Your task to perform on an android device: toggle translation in the chrome app Image 0: 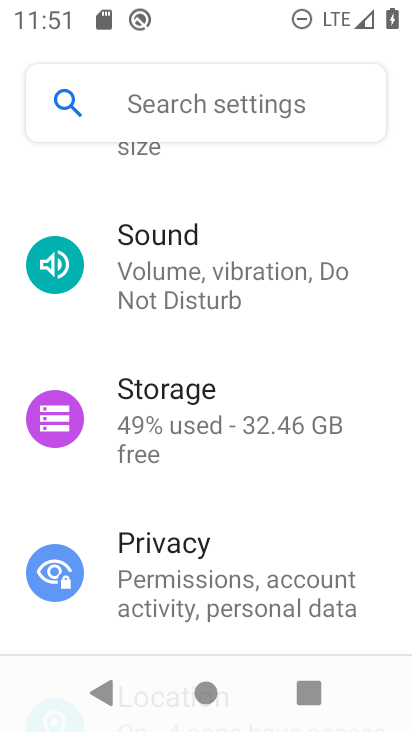
Step 0: press home button
Your task to perform on an android device: toggle translation in the chrome app Image 1: 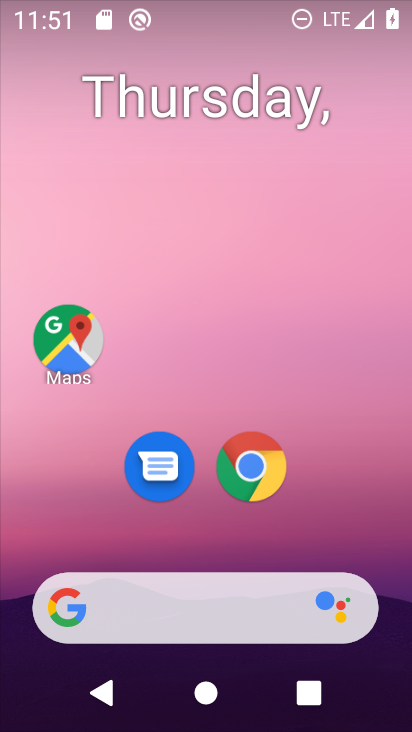
Step 1: drag from (216, 574) to (273, 86)
Your task to perform on an android device: toggle translation in the chrome app Image 2: 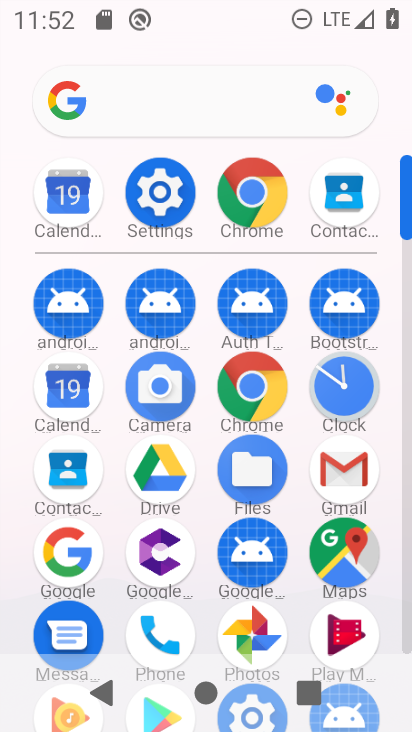
Step 2: click (261, 400)
Your task to perform on an android device: toggle translation in the chrome app Image 3: 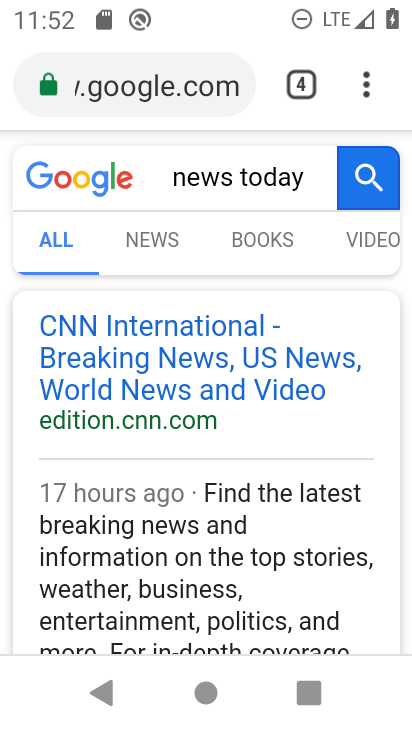
Step 3: drag from (362, 83) to (125, 505)
Your task to perform on an android device: toggle translation in the chrome app Image 4: 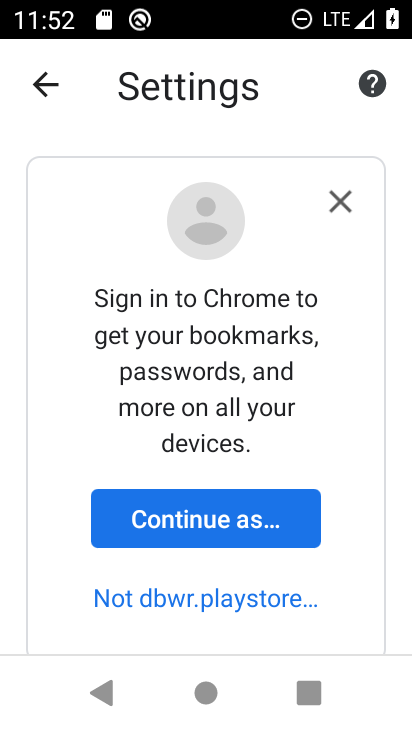
Step 4: drag from (332, 618) to (324, 88)
Your task to perform on an android device: toggle translation in the chrome app Image 5: 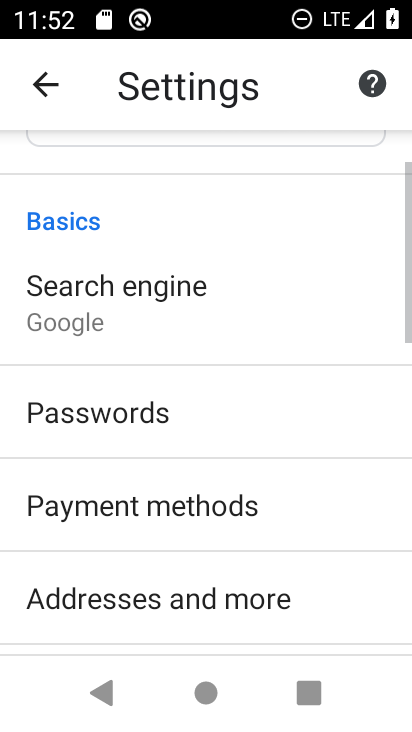
Step 5: drag from (320, 626) to (283, 152)
Your task to perform on an android device: toggle translation in the chrome app Image 6: 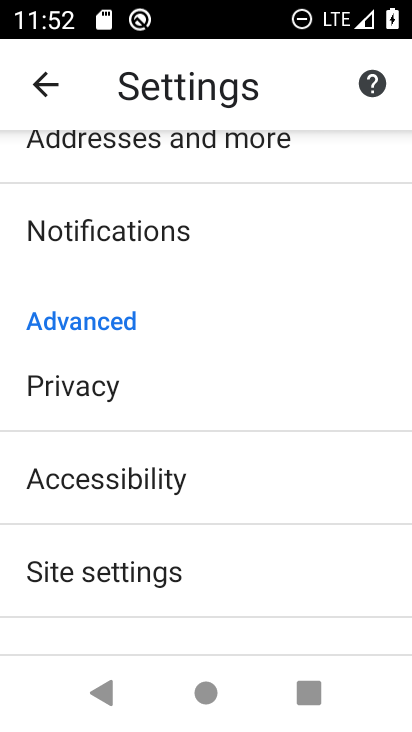
Step 6: click (185, 571)
Your task to perform on an android device: toggle translation in the chrome app Image 7: 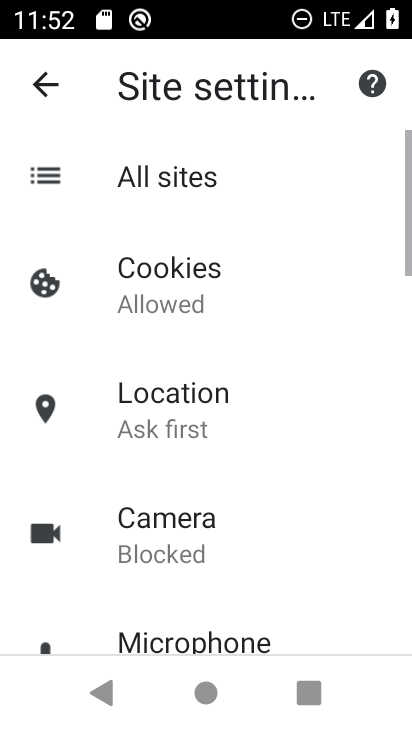
Step 7: drag from (237, 616) to (254, 126)
Your task to perform on an android device: toggle translation in the chrome app Image 8: 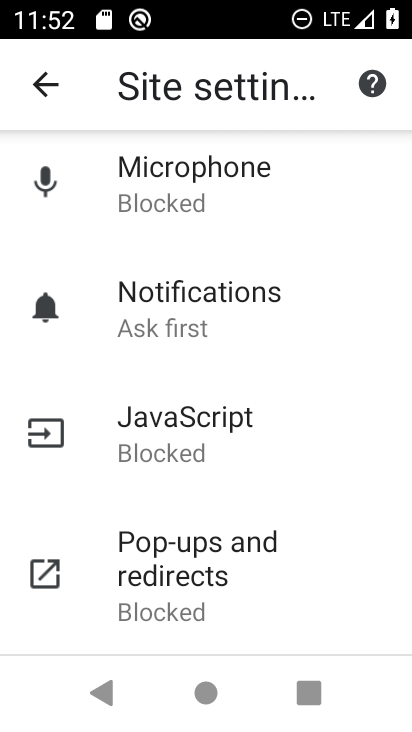
Step 8: drag from (249, 577) to (236, 649)
Your task to perform on an android device: toggle translation in the chrome app Image 9: 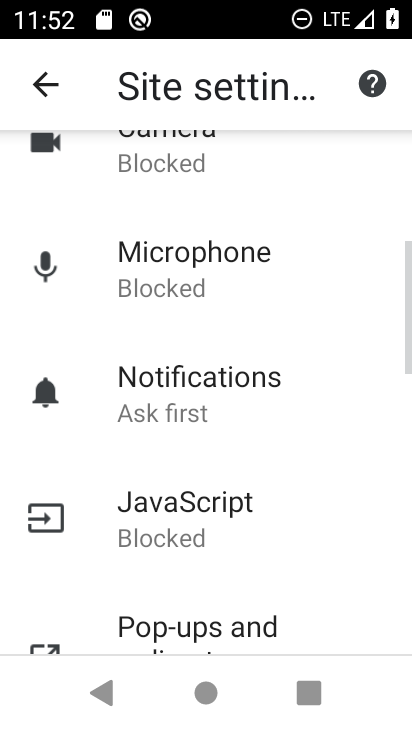
Step 9: drag from (252, 349) to (228, 598)
Your task to perform on an android device: toggle translation in the chrome app Image 10: 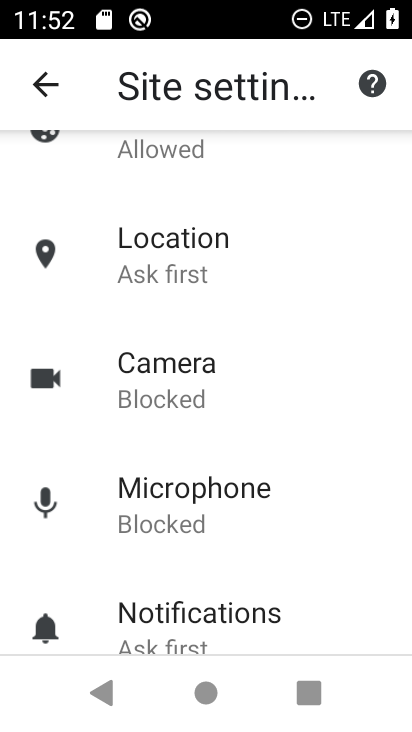
Step 10: press back button
Your task to perform on an android device: toggle translation in the chrome app Image 11: 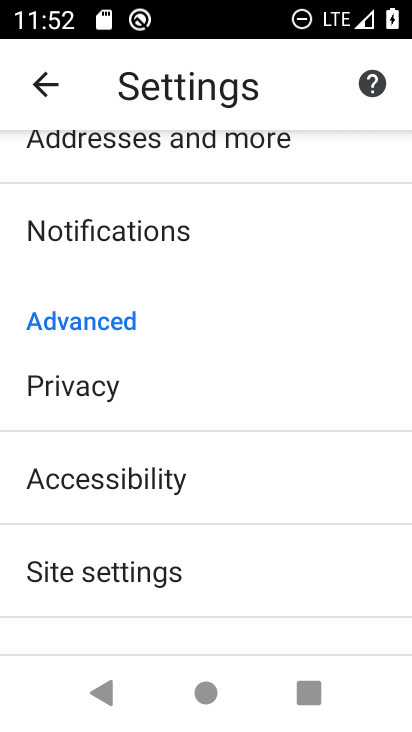
Step 11: drag from (191, 633) to (251, 366)
Your task to perform on an android device: toggle translation in the chrome app Image 12: 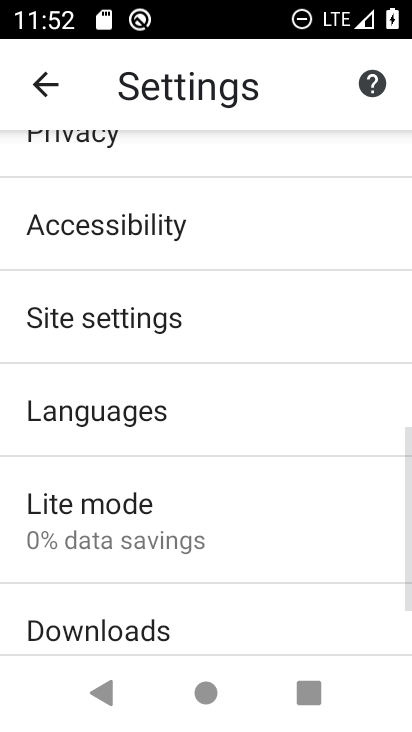
Step 12: click (218, 400)
Your task to perform on an android device: toggle translation in the chrome app Image 13: 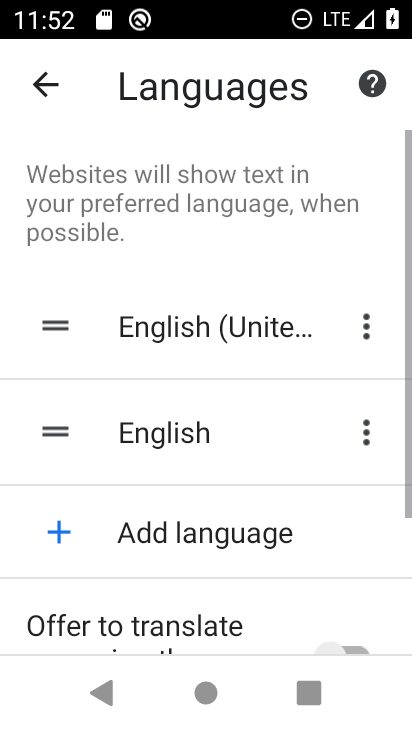
Step 13: drag from (251, 593) to (337, 260)
Your task to perform on an android device: toggle translation in the chrome app Image 14: 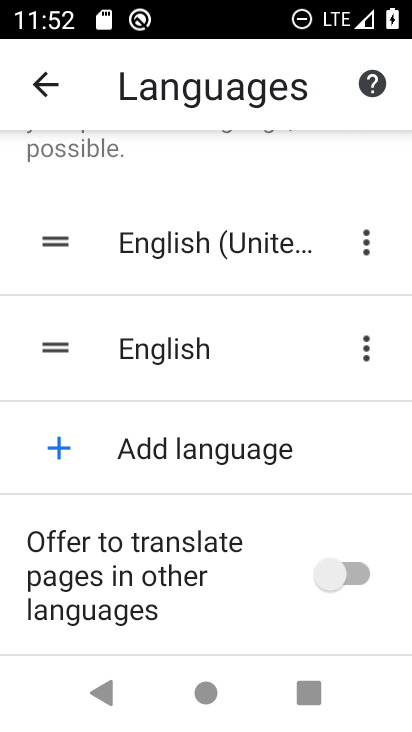
Step 14: click (343, 568)
Your task to perform on an android device: toggle translation in the chrome app Image 15: 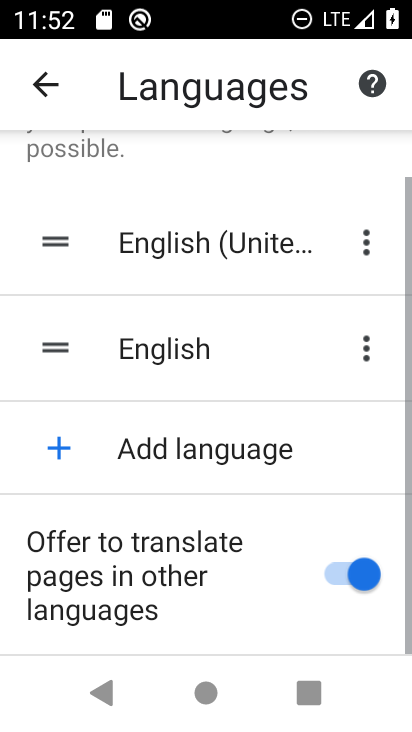
Step 15: task complete